Your task to perform on an android device: Open eBay Image 0: 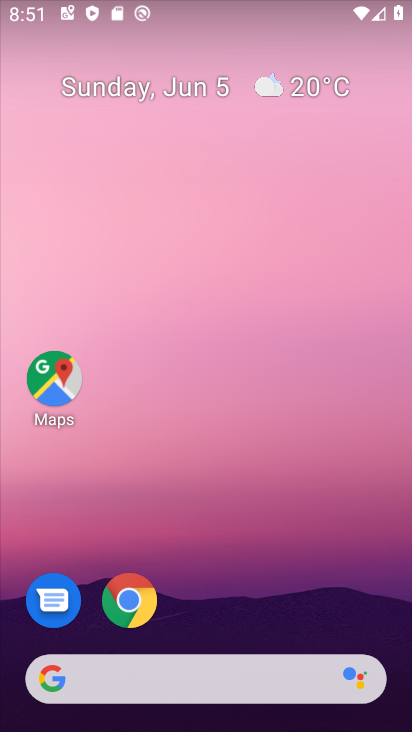
Step 0: click (221, 689)
Your task to perform on an android device: Open eBay Image 1: 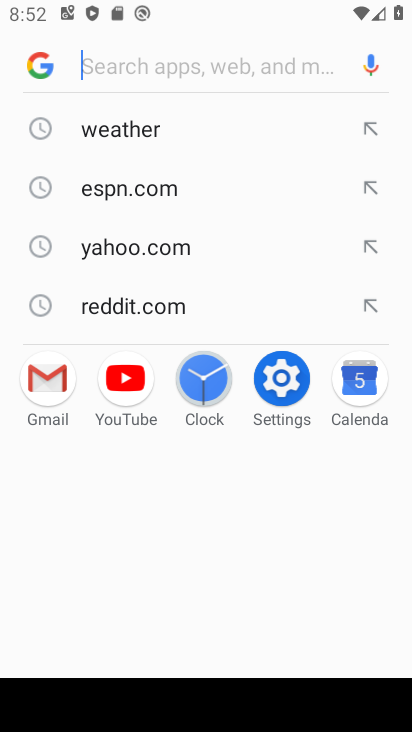
Step 1: type "ebay"
Your task to perform on an android device: Open eBay Image 2: 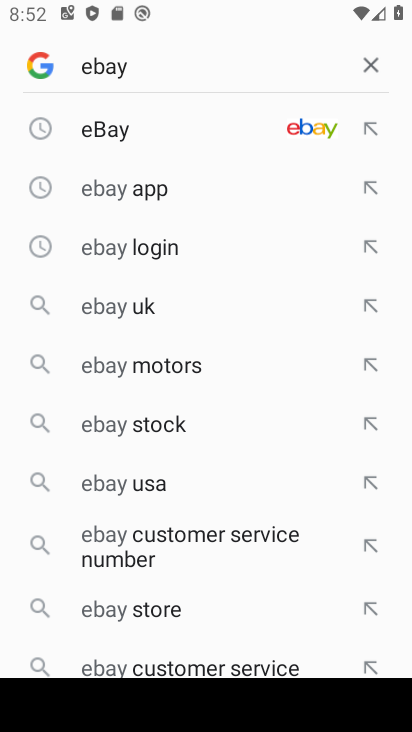
Step 2: click (123, 139)
Your task to perform on an android device: Open eBay Image 3: 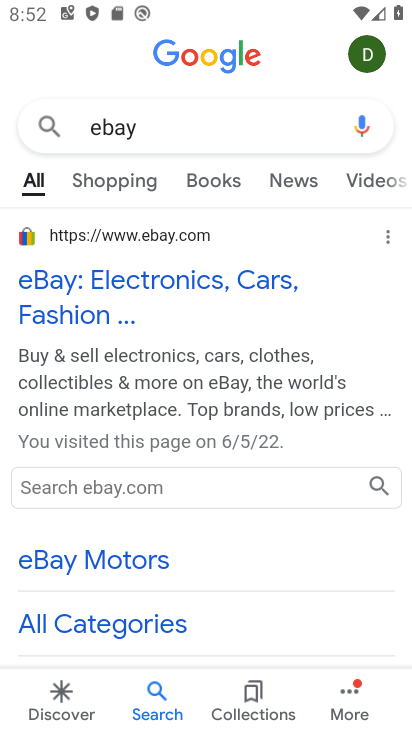
Step 3: click (49, 270)
Your task to perform on an android device: Open eBay Image 4: 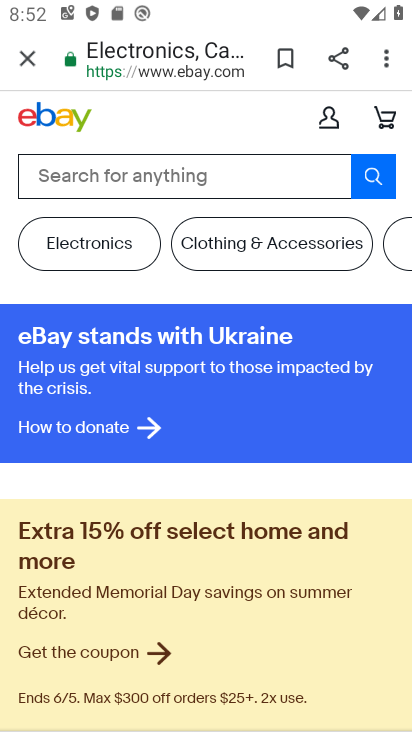
Step 4: task complete